Your task to perform on an android device: remove spam from my inbox in the gmail app Image 0: 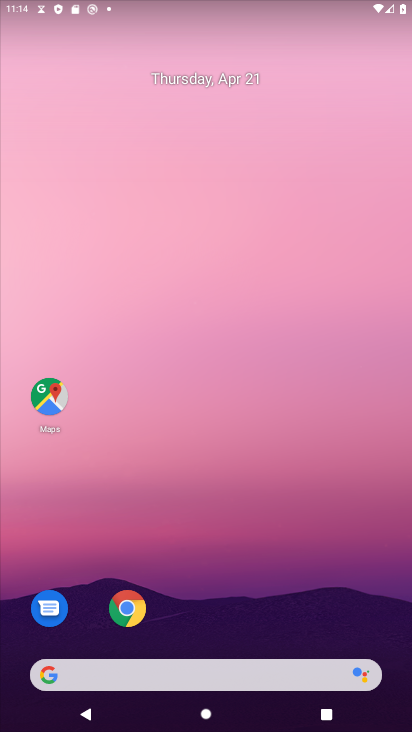
Step 0: drag from (264, 495) to (159, 47)
Your task to perform on an android device: remove spam from my inbox in the gmail app Image 1: 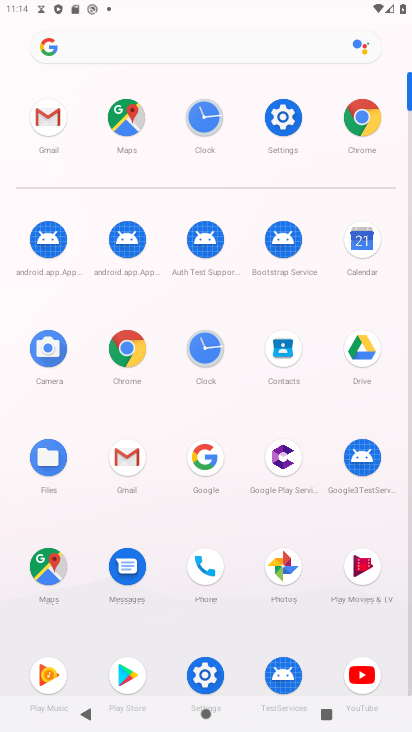
Step 1: click (126, 457)
Your task to perform on an android device: remove spam from my inbox in the gmail app Image 2: 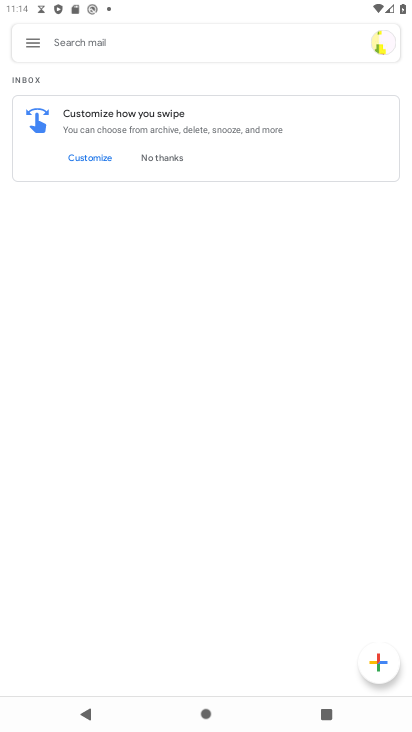
Step 2: click (36, 48)
Your task to perform on an android device: remove spam from my inbox in the gmail app Image 3: 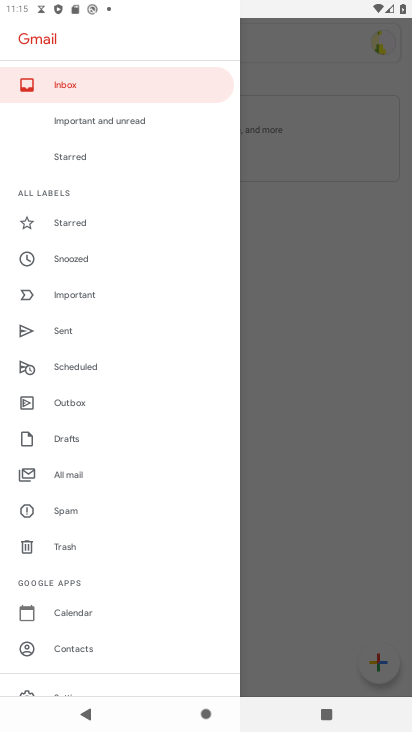
Step 3: click (62, 512)
Your task to perform on an android device: remove spam from my inbox in the gmail app Image 4: 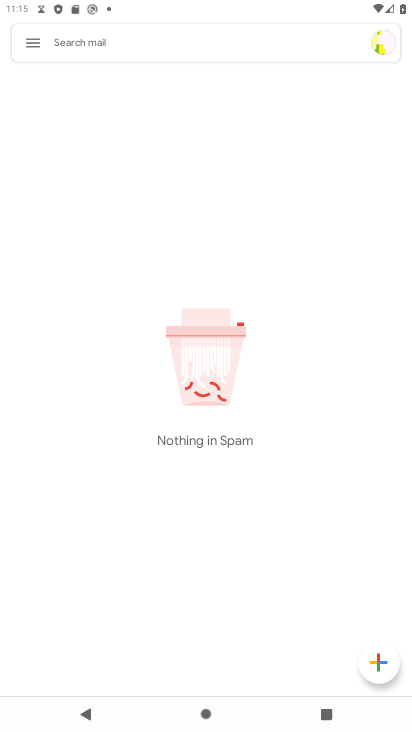
Step 4: task complete